Your task to perform on an android device: Go to display settings Image 0: 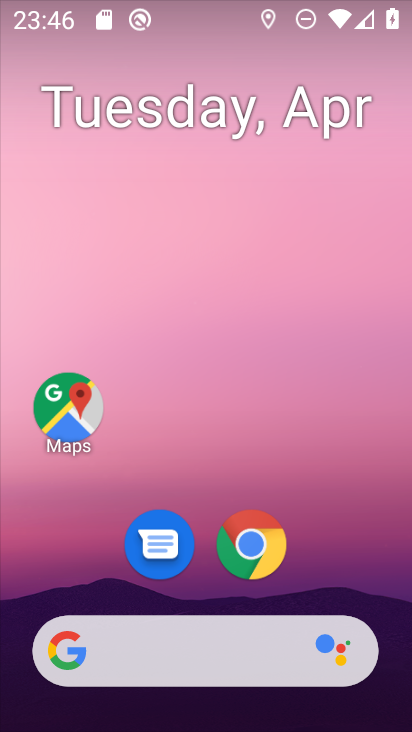
Step 0: drag from (342, 554) to (314, 104)
Your task to perform on an android device: Go to display settings Image 1: 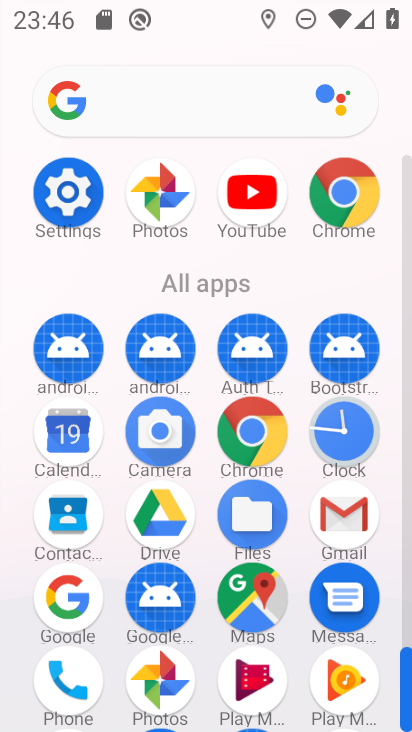
Step 1: click (48, 187)
Your task to perform on an android device: Go to display settings Image 2: 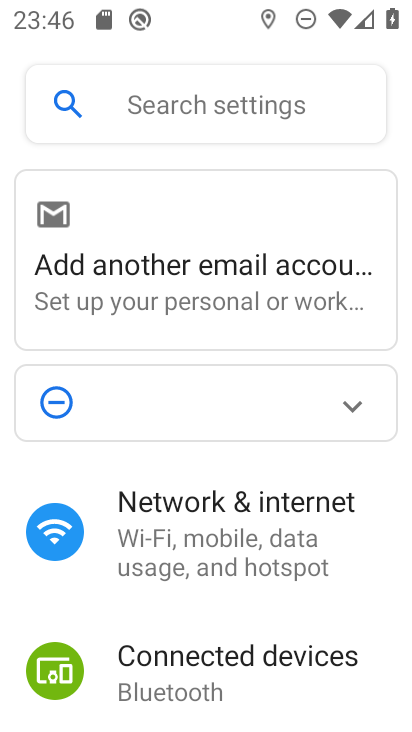
Step 2: drag from (373, 598) to (359, 376)
Your task to perform on an android device: Go to display settings Image 3: 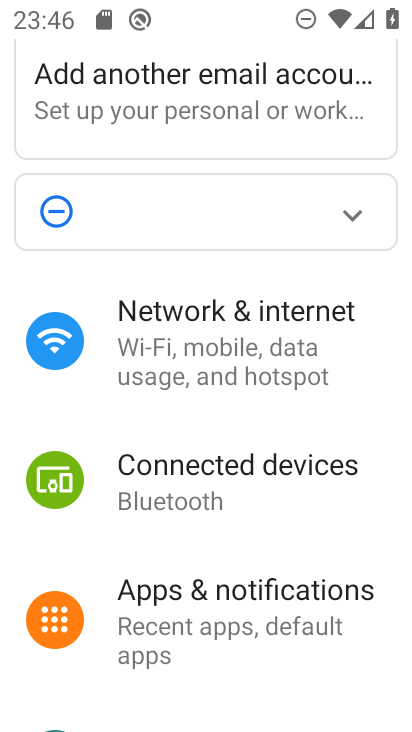
Step 3: drag from (390, 643) to (370, 488)
Your task to perform on an android device: Go to display settings Image 4: 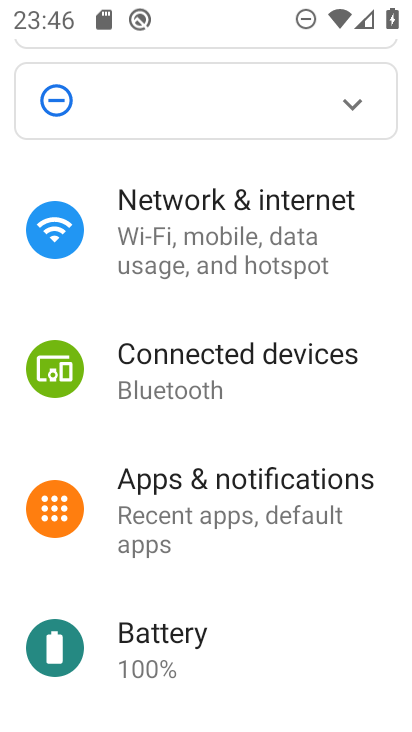
Step 4: drag from (335, 610) to (312, 467)
Your task to perform on an android device: Go to display settings Image 5: 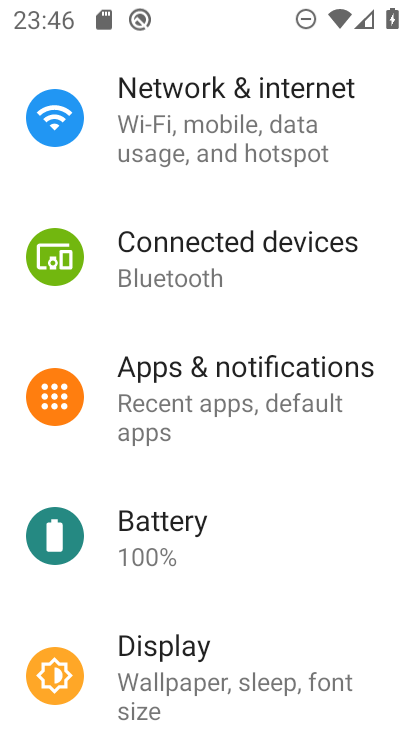
Step 5: drag from (302, 576) to (276, 476)
Your task to perform on an android device: Go to display settings Image 6: 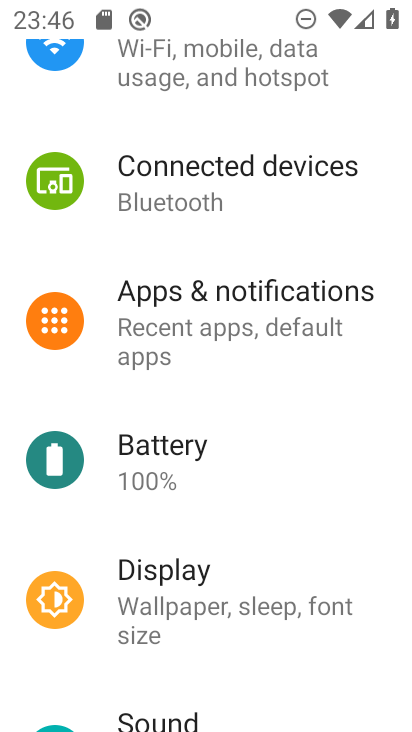
Step 6: drag from (309, 514) to (283, 468)
Your task to perform on an android device: Go to display settings Image 7: 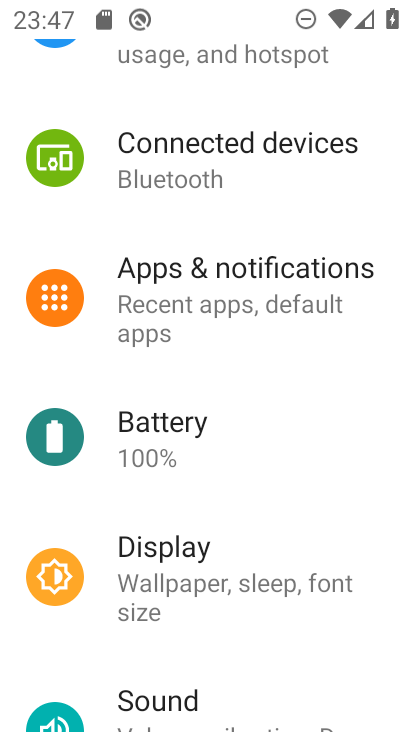
Step 7: click (230, 579)
Your task to perform on an android device: Go to display settings Image 8: 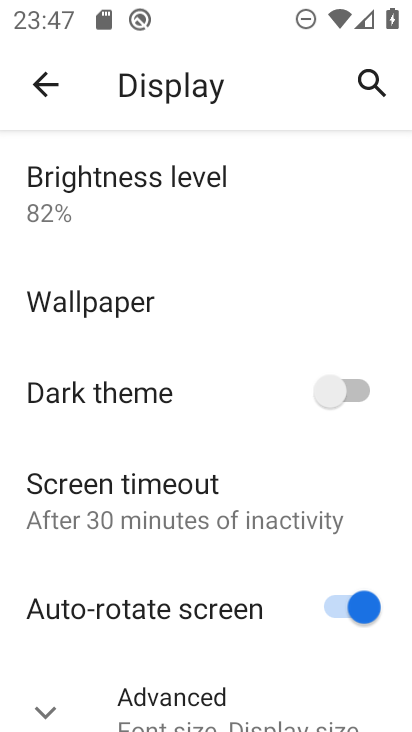
Step 8: drag from (242, 646) to (250, 589)
Your task to perform on an android device: Go to display settings Image 9: 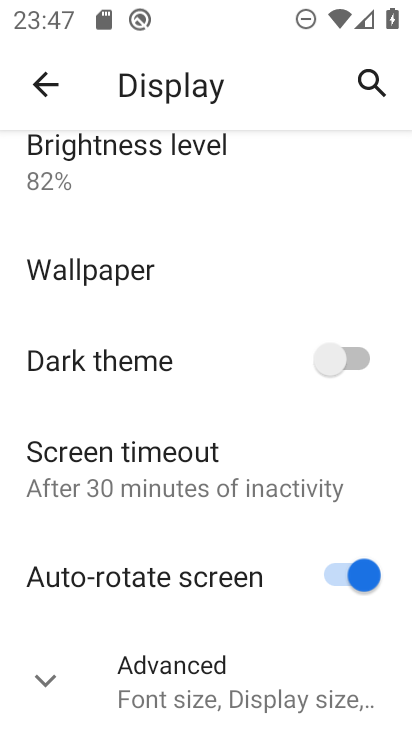
Step 9: click (216, 667)
Your task to perform on an android device: Go to display settings Image 10: 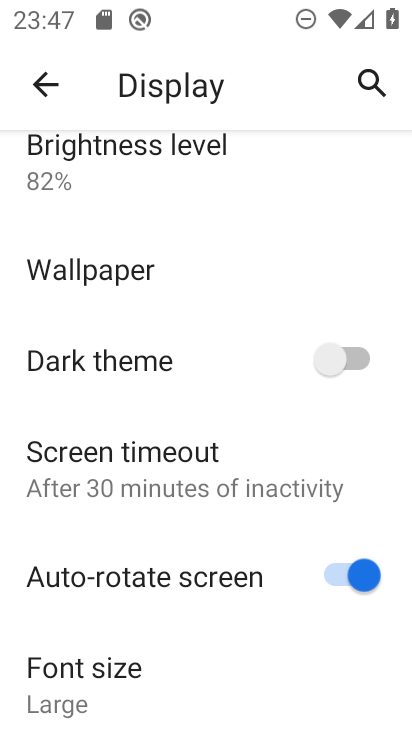
Step 10: drag from (231, 639) to (206, 486)
Your task to perform on an android device: Go to display settings Image 11: 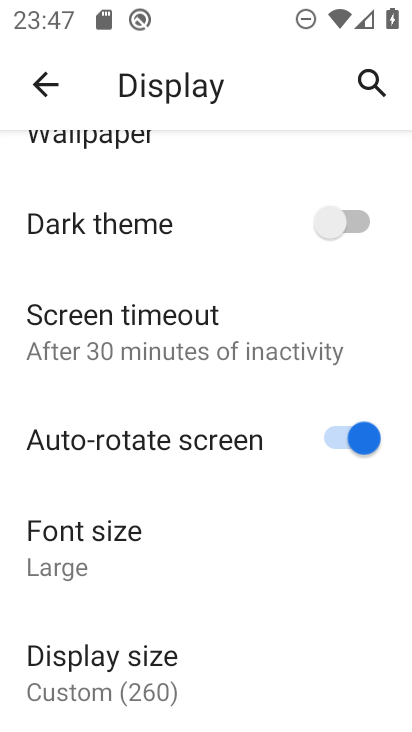
Step 11: drag from (242, 594) to (206, 455)
Your task to perform on an android device: Go to display settings Image 12: 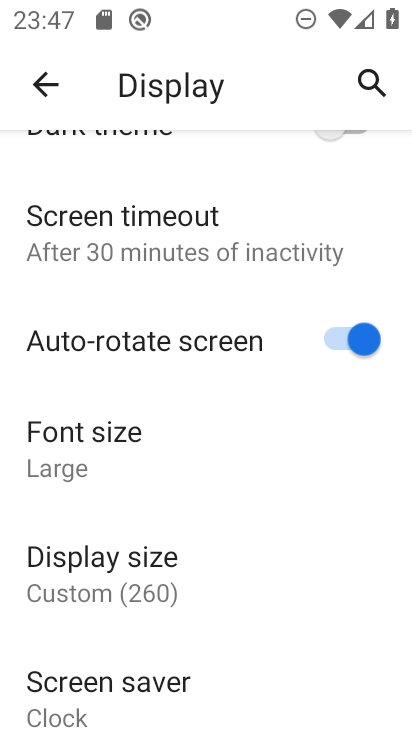
Step 12: click (247, 591)
Your task to perform on an android device: Go to display settings Image 13: 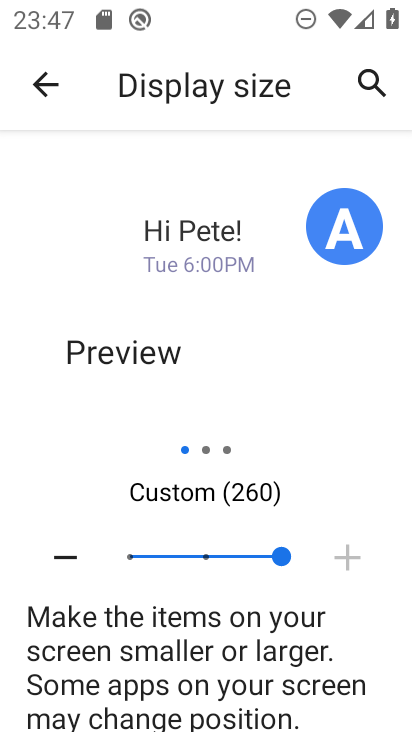
Step 13: task complete